Your task to perform on an android device: turn notification dots off Image 0: 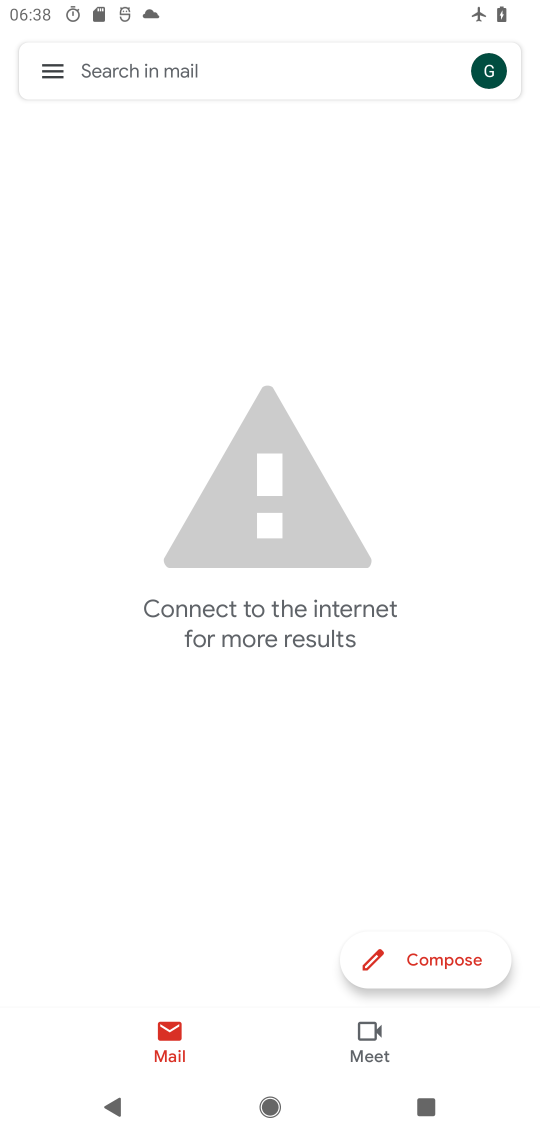
Step 0: press home button
Your task to perform on an android device: turn notification dots off Image 1: 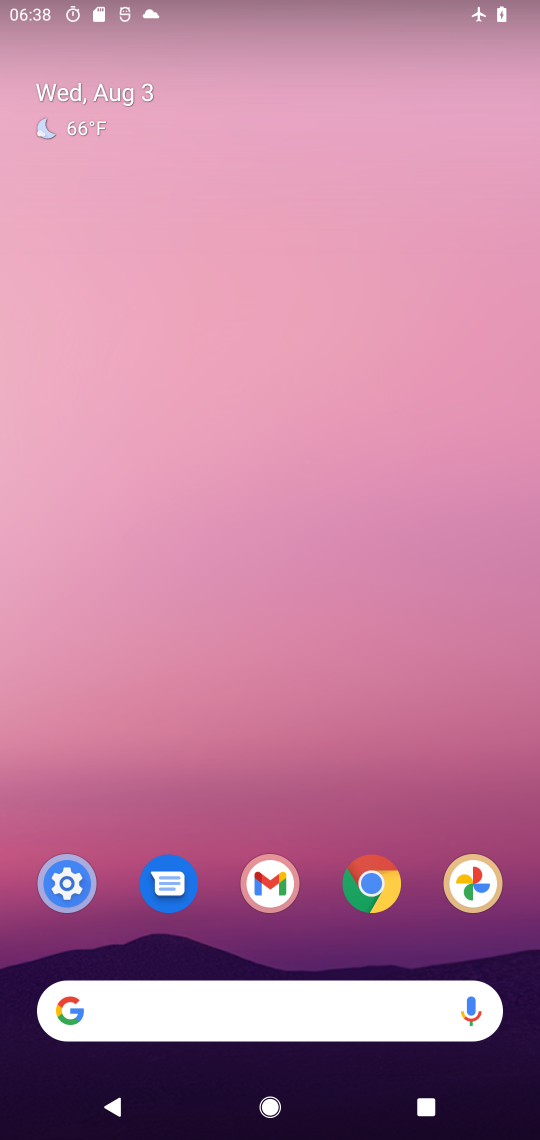
Step 1: drag from (346, 977) to (354, 266)
Your task to perform on an android device: turn notification dots off Image 2: 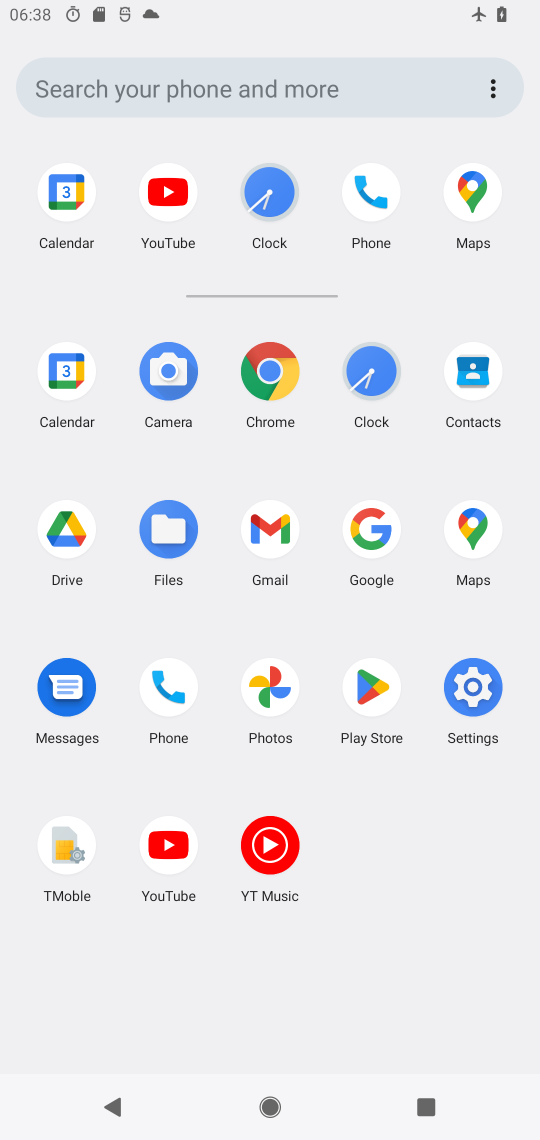
Step 2: click (465, 696)
Your task to perform on an android device: turn notification dots off Image 3: 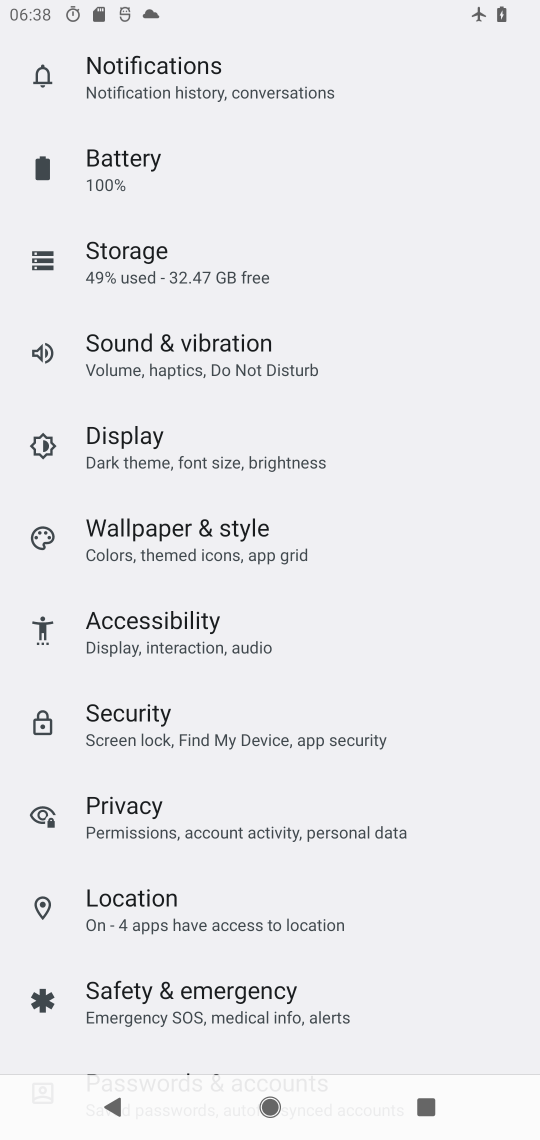
Step 3: click (143, 85)
Your task to perform on an android device: turn notification dots off Image 4: 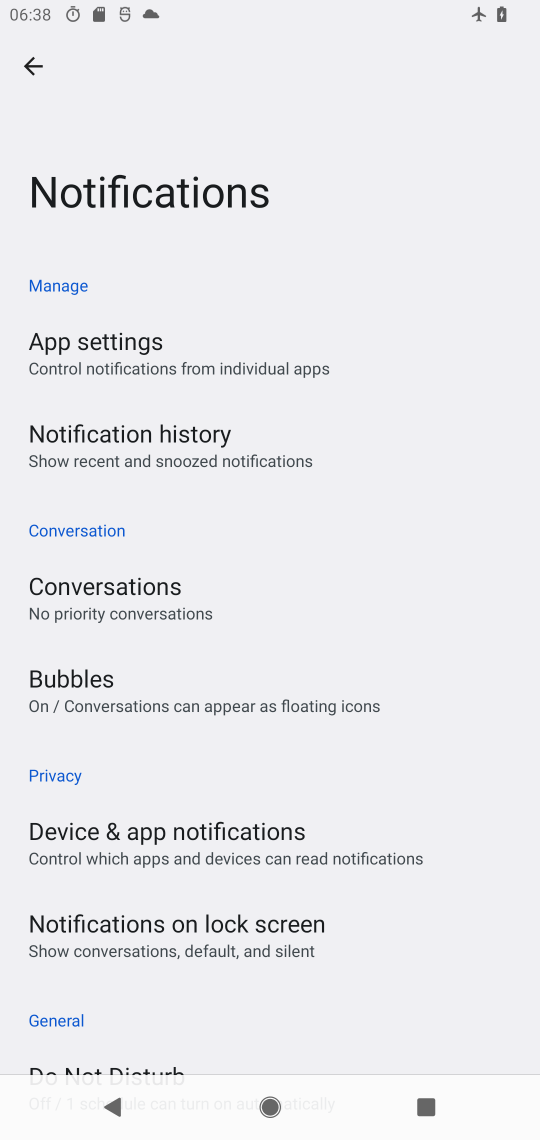
Step 4: click (122, 447)
Your task to perform on an android device: turn notification dots off Image 5: 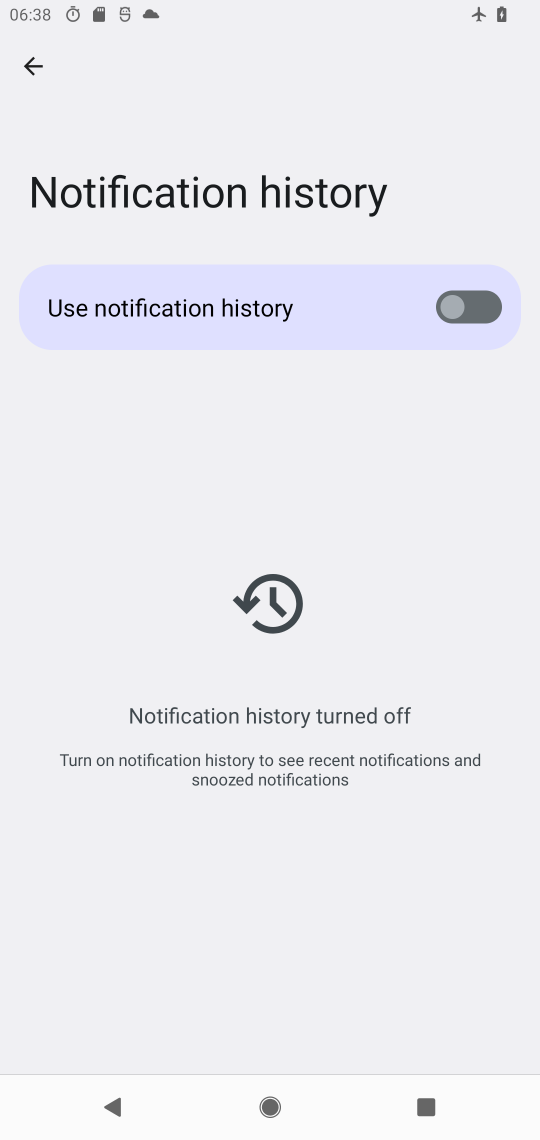
Step 5: click (36, 65)
Your task to perform on an android device: turn notification dots off Image 6: 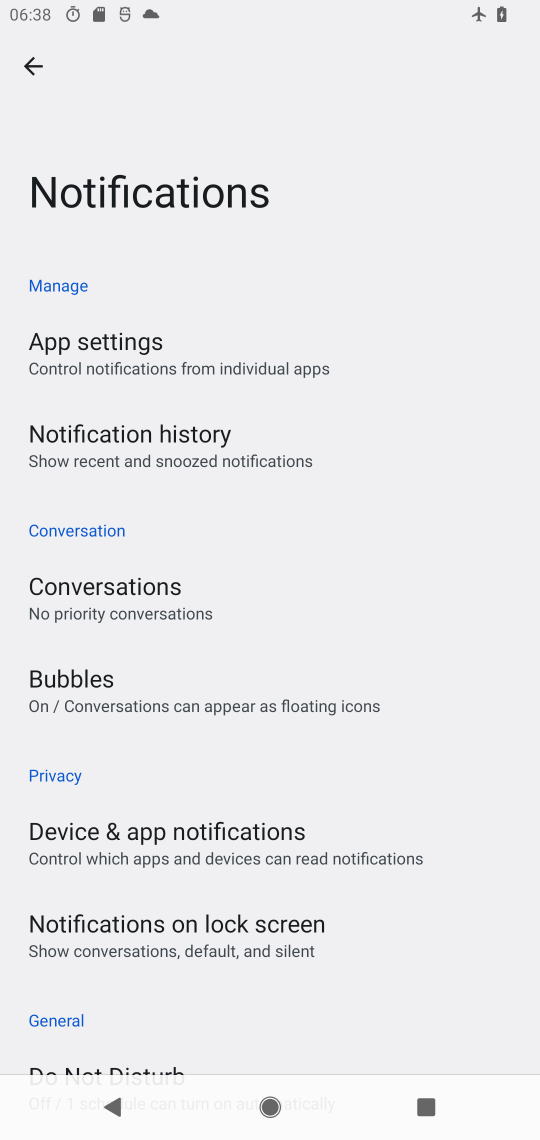
Step 6: drag from (172, 985) to (186, 299)
Your task to perform on an android device: turn notification dots off Image 7: 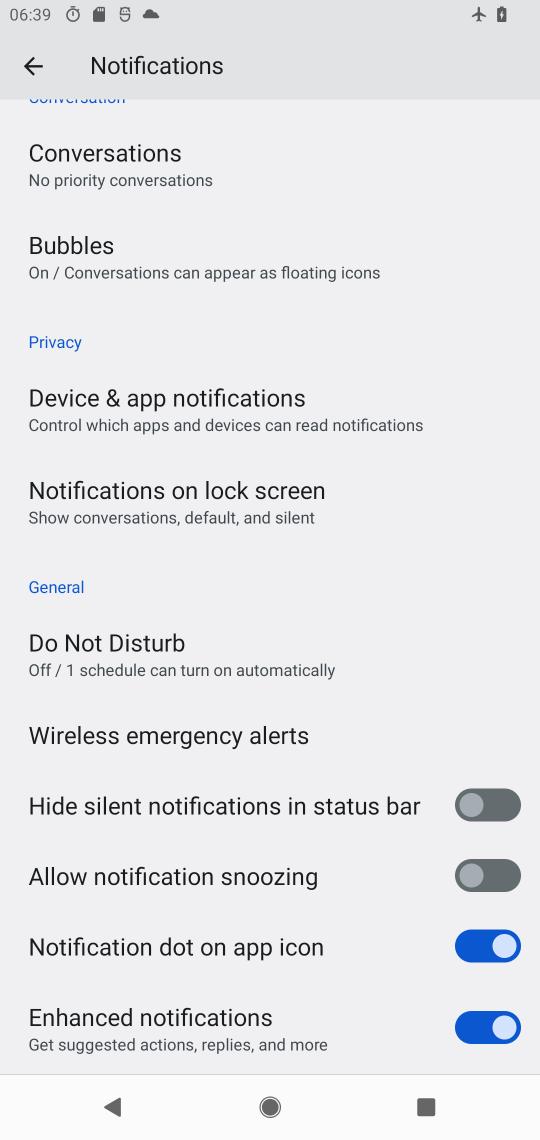
Step 7: drag from (148, 1018) to (143, 474)
Your task to perform on an android device: turn notification dots off Image 8: 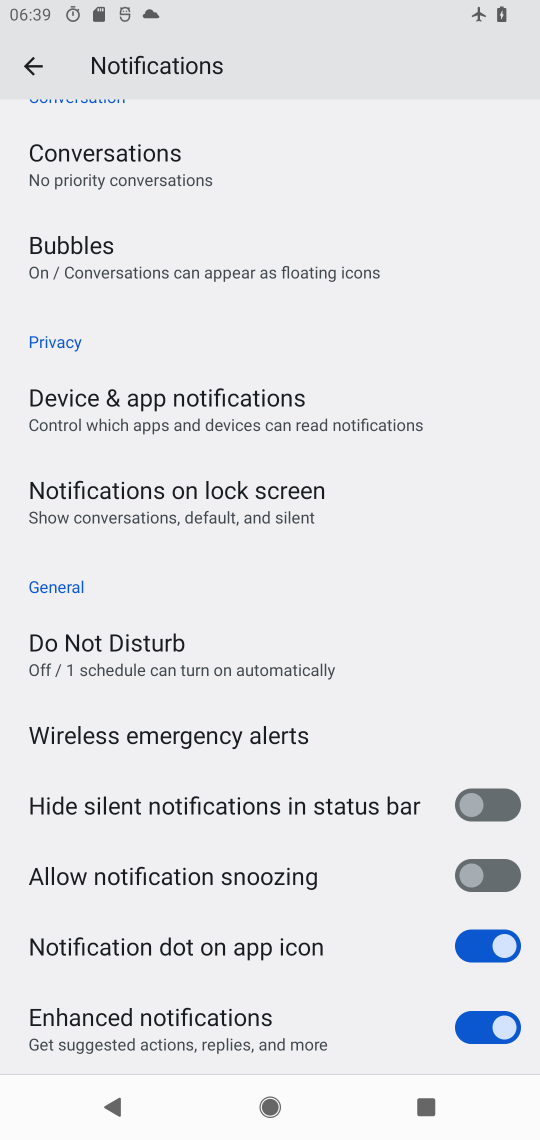
Step 8: click (475, 941)
Your task to perform on an android device: turn notification dots off Image 9: 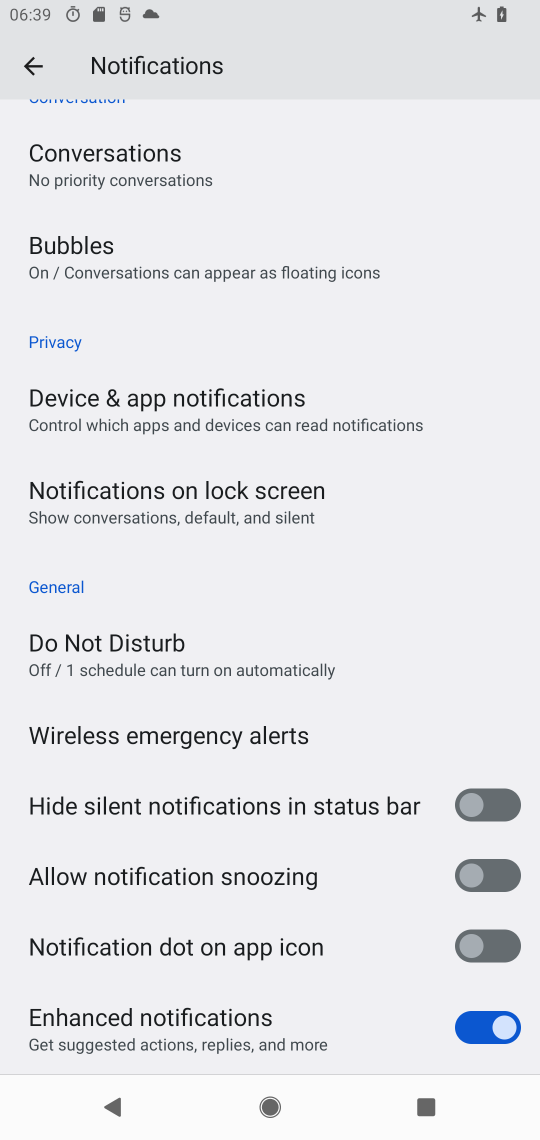
Step 9: task complete